Your task to perform on an android device: turn on translation in the chrome app Image 0: 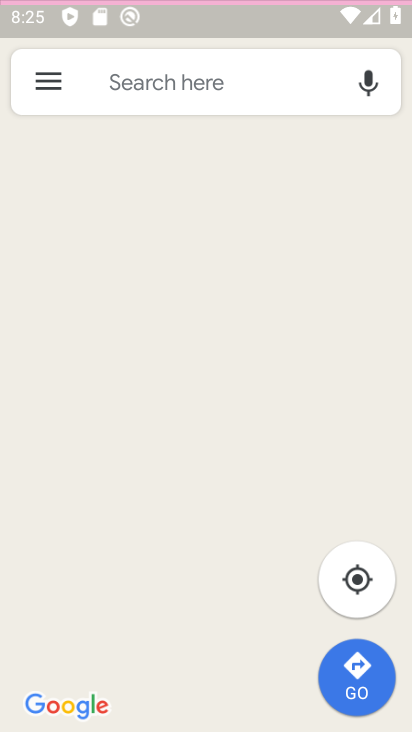
Step 0: press back button
Your task to perform on an android device: turn on translation in the chrome app Image 1: 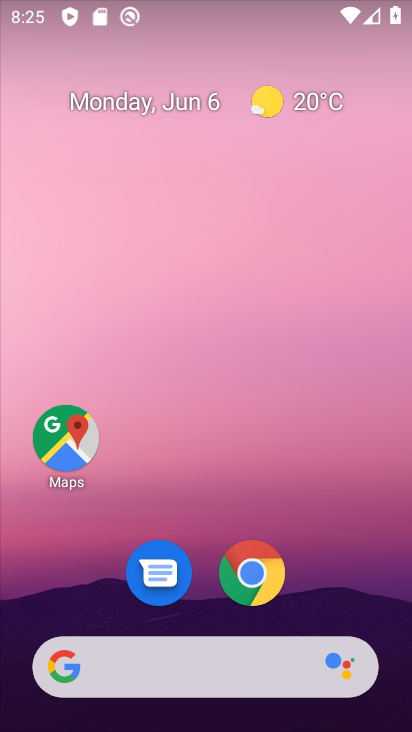
Step 1: press home button
Your task to perform on an android device: turn on translation in the chrome app Image 2: 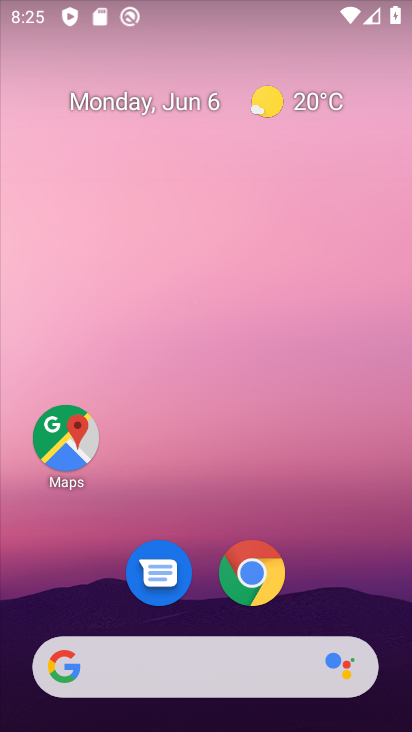
Step 2: drag from (278, 711) to (169, 87)
Your task to perform on an android device: turn on translation in the chrome app Image 3: 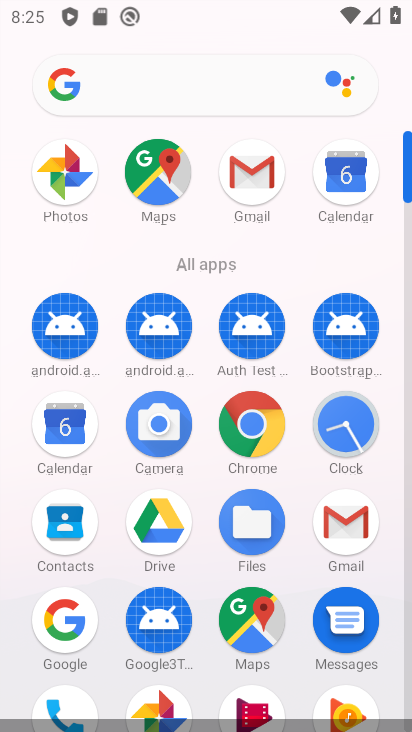
Step 3: click (239, 412)
Your task to perform on an android device: turn on translation in the chrome app Image 4: 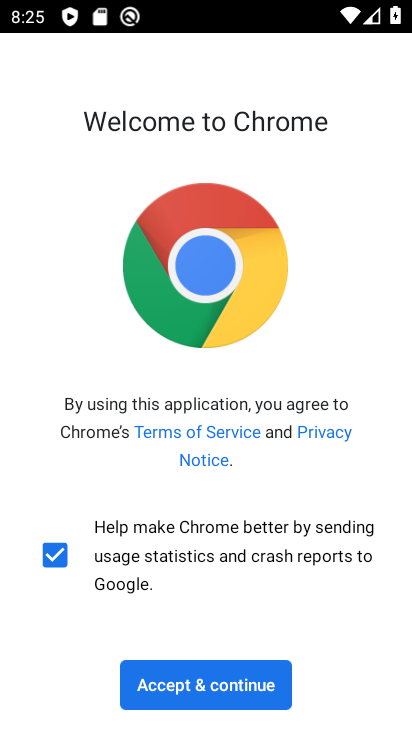
Step 4: click (217, 681)
Your task to perform on an android device: turn on translation in the chrome app Image 5: 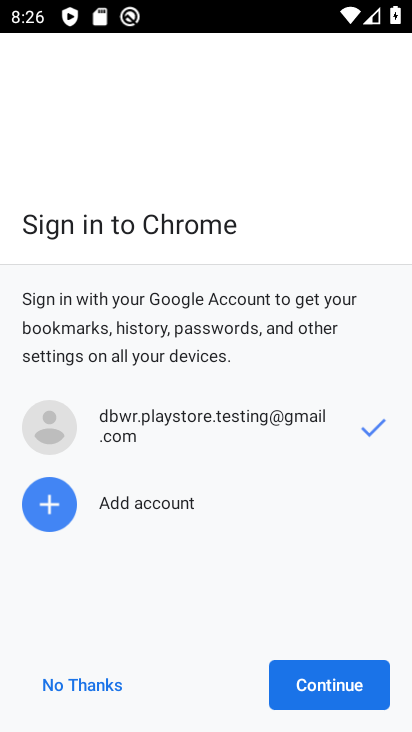
Step 5: click (322, 687)
Your task to perform on an android device: turn on translation in the chrome app Image 6: 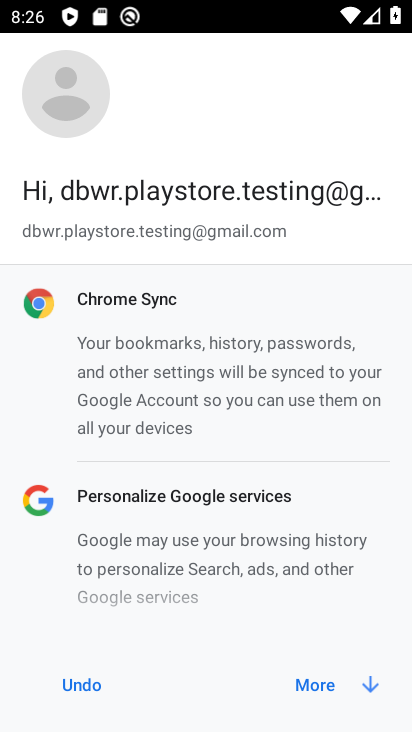
Step 6: click (323, 686)
Your task to perform on an android device: turn on translation in the chrome app Image 7: 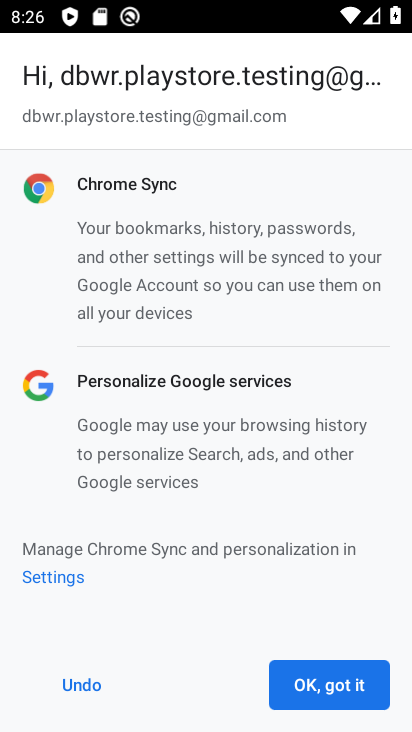
Step 7: click (323, 686)
Your task to perform on an android device: turn on translation in the chrome app Image 8: 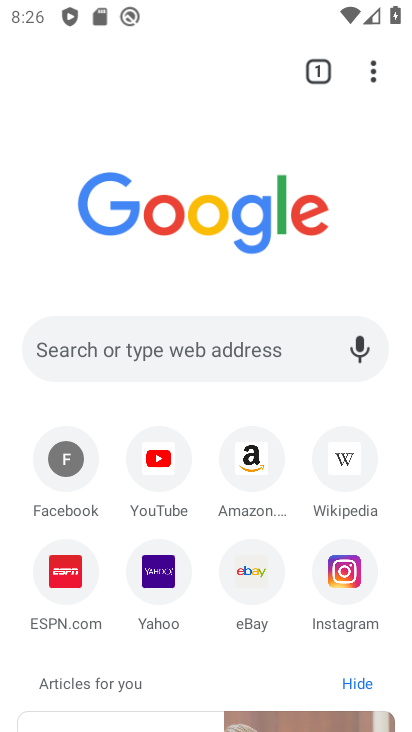
Step 8: drag from (364, 74) to (107, 606)
Your task to perform on an android device: turn on translation in the chrome app Image 9: 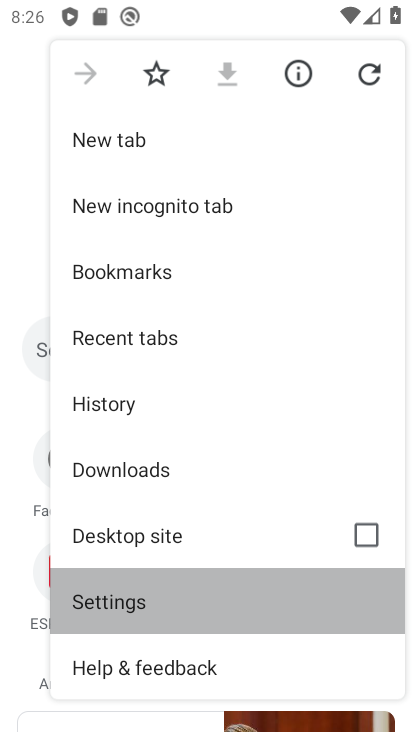
Step 9: click (105, 603)
Your task to perform on an android device: turn on translation in the chrome app Image 10: 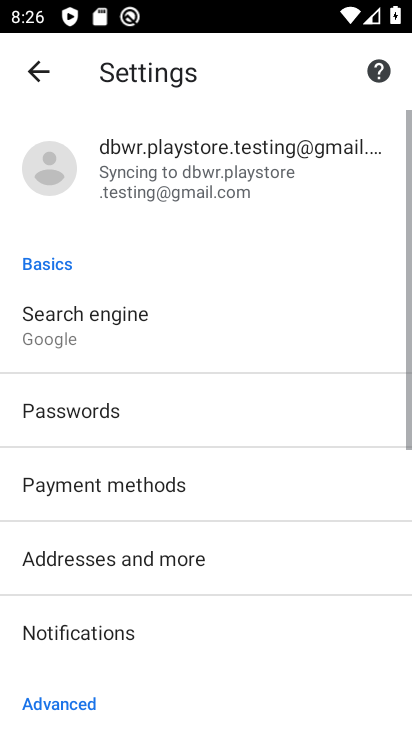
Step 10: drag from (165, 553) to (123, 207)
Your task to perform on an android device: turn on translation in the chrome app Image 11: 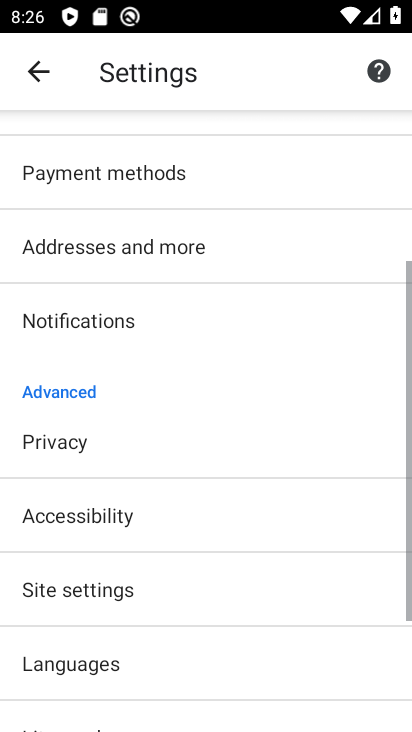
Step 11: drag from (124, 537) to (124, 243)
Your task to perform on an android device: turn on translation in the chrome app Image 12: 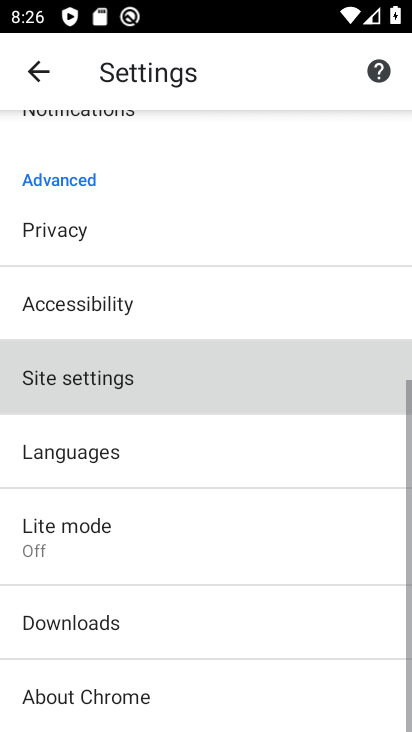
Step 12: drag from (145, 524) to (145, 267)
Your task to perform on an android device: turn on translation in the chrome app Image 13: 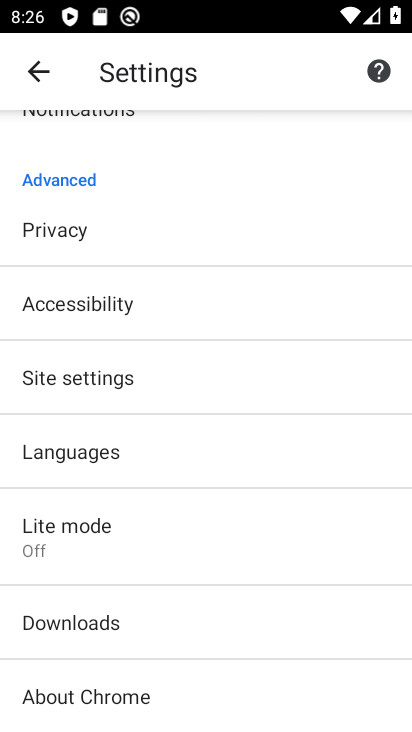
Step 13: click (54, 372)
Your task to perform on an android device: turn on translation in the chrome app Image 14: 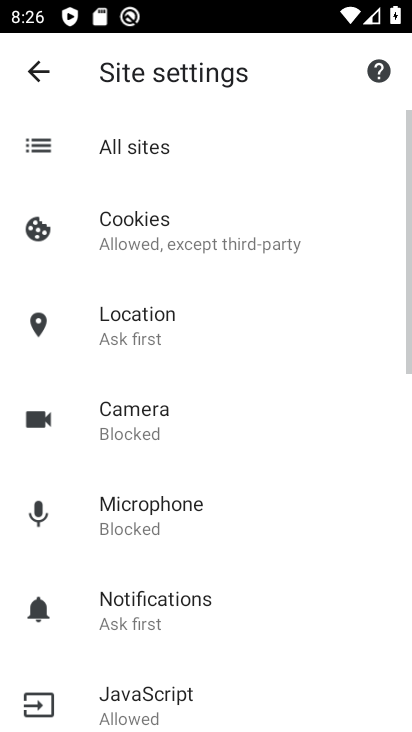
Step 14: click (33, 73)
Your task to perform on an android device: turn on translation in the chrome app Image 15: 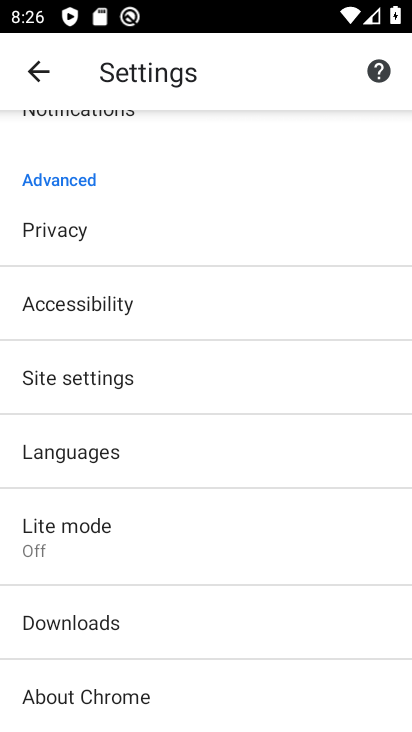
Step 15: click (58, 459)
Your task to perform on an android device: turn on translation in the chrome app Image 16: 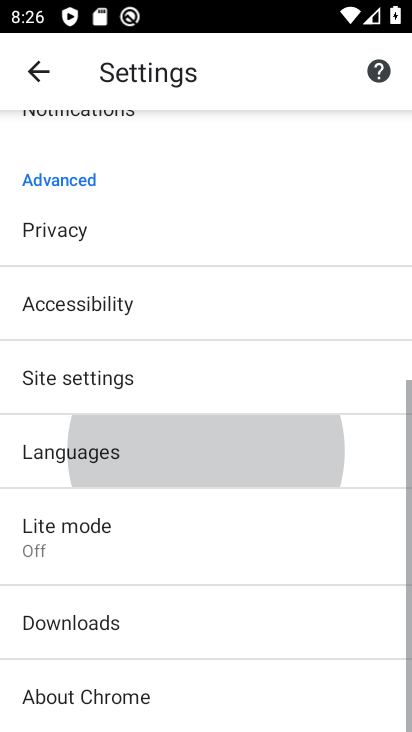
Step 16: click (58, 459)
Your task to perform on an android device: turn on translation in the chrome app Image 17: 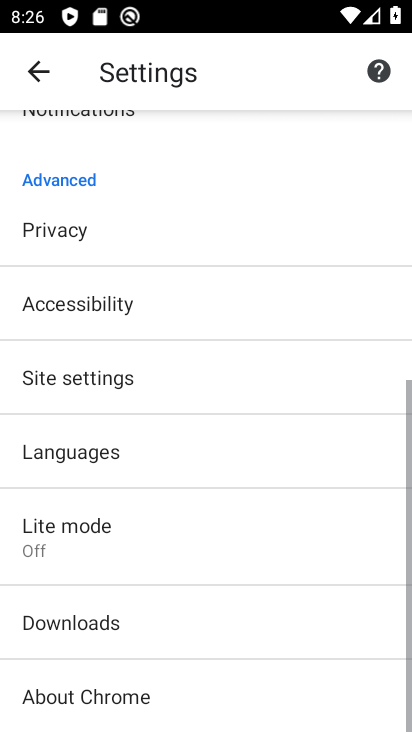
Step 17: click (58, 459)
Your task to perform on an android device: turn on translation in the chrome app Image 18: 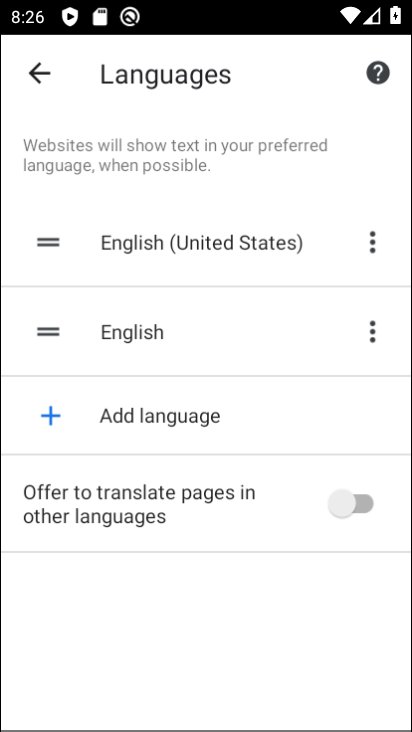
Step 18: click (58, 458)
Your task to perform on an android device: turn on translation in the chrome app Image 19: 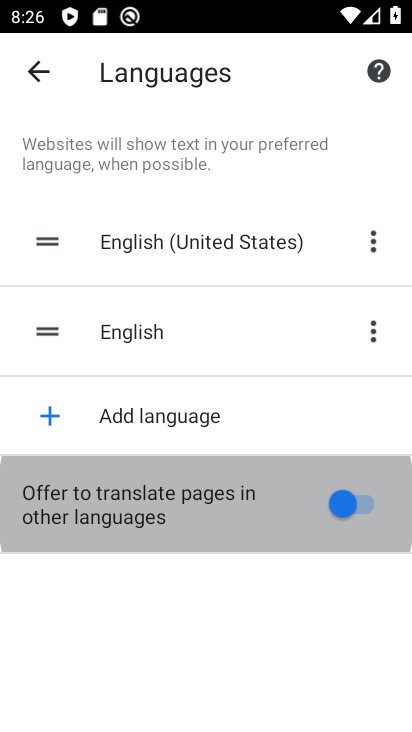
Step 19: click (58, 453)
Your task to perform on an android device: turn on translation in the chrome app Image 20: 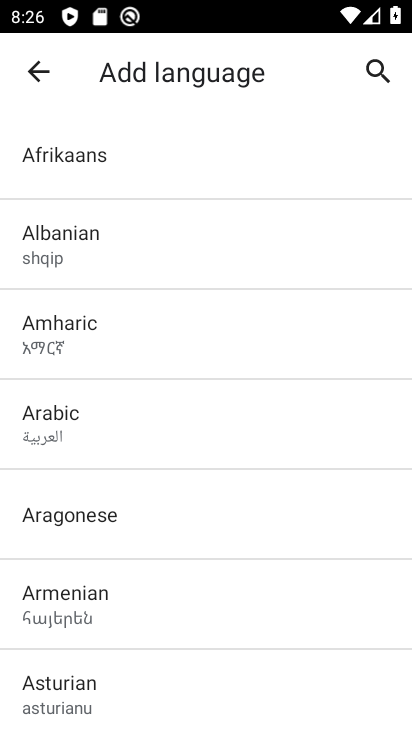
Step 20: click (37, 76)
Your task to perform on an android device: turn on translation in the chrome app Image 21: 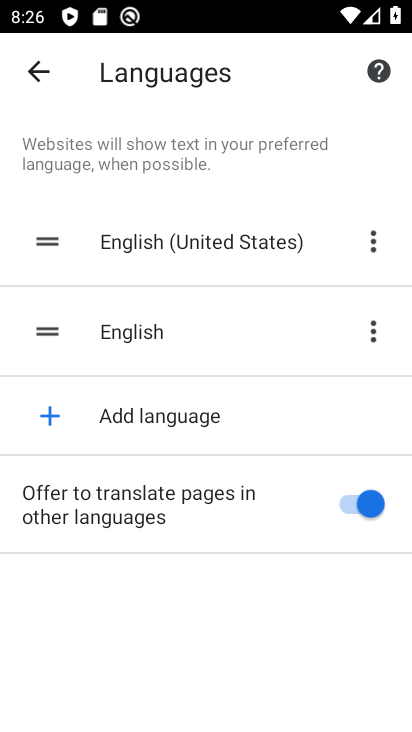
Step 21: task complete